Your task to perform on an android device: show emergency info Image 0: 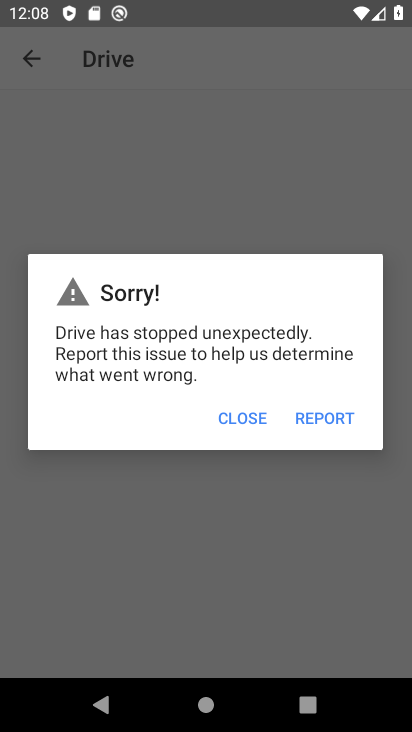
Step 0: press home button
Your task to perform on an android device: show emergency info Image 1: 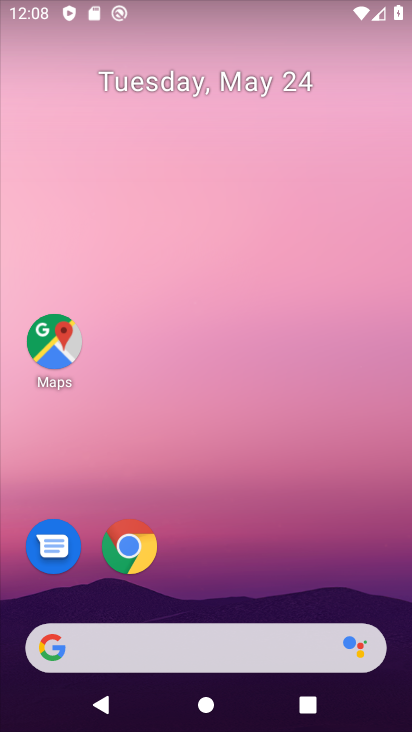
Step 1: drag from (256, 652) to (321, 2)
Your task to perform on an android device: show emergency info Image 2: 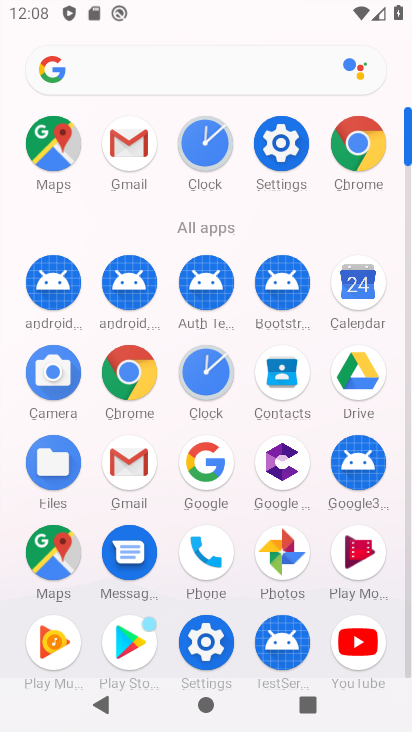
Step 2: drag from (241, 598) to (241, 177)
Your task to perform on an android device: show emergency info Image 3: 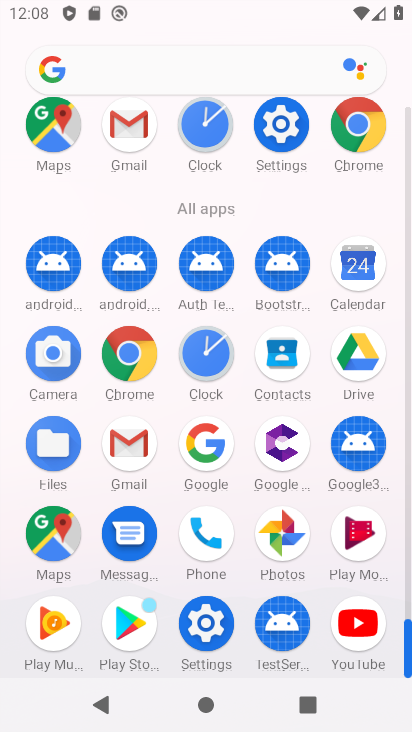
Step 3: click (191, 608)
Your task to perform on an android device: show emergency info Image 4: 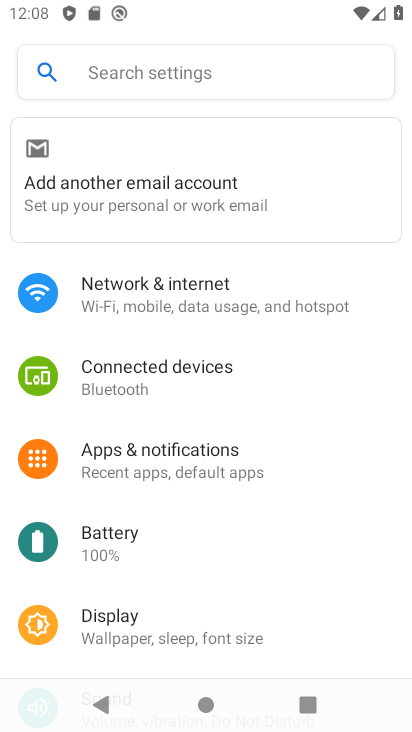
Step 4: drag from (250, 604) to (278, 104)
Your task to perform on an android device: show emergency info Image 5: 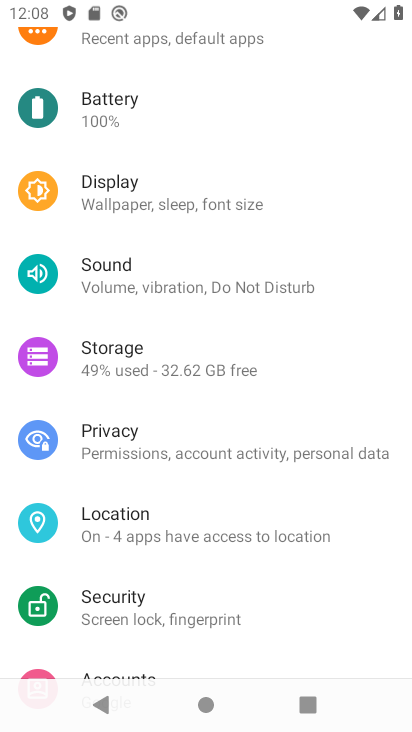
Step 5: drag from (277, 588) to (239, 232)
Your task to perform on an android device: show emergency info Image 6: 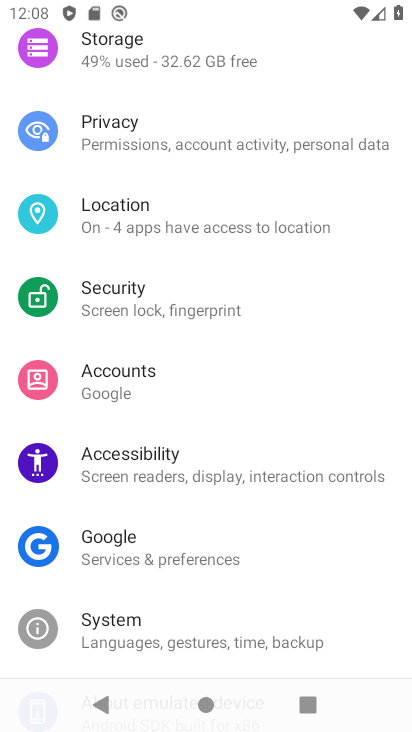
Step 6: drag from (214, 615) to (223, 259)
Your task to perform on an android device: show emergency info Image 7: 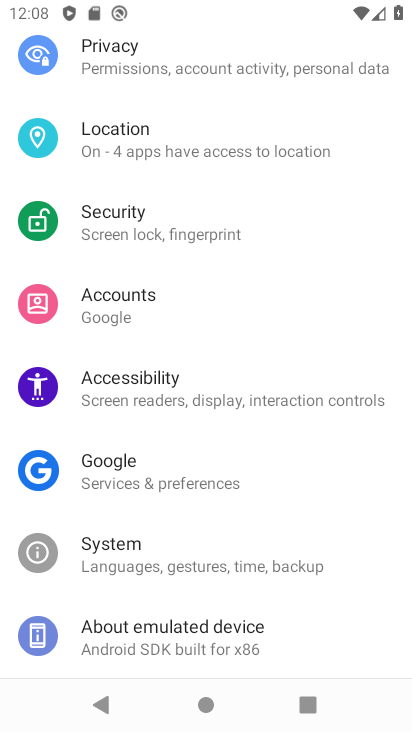
Step 7: click (221, 641)
Your task to perform on an android device: show emergency info Image 8: 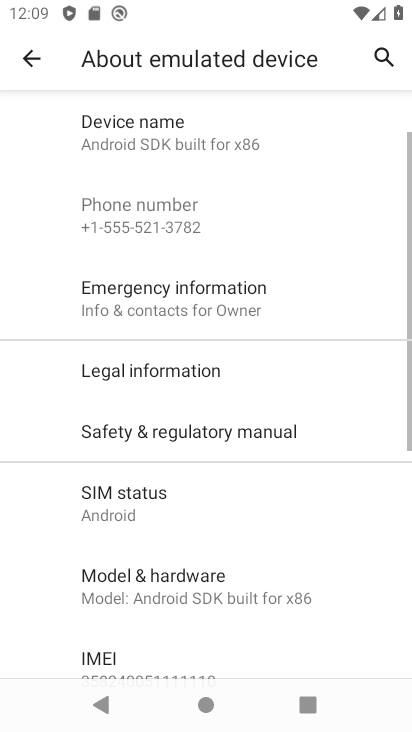
Step 8: click (187, 296)
Your task to perform on an android device: show emergency info Image 9: 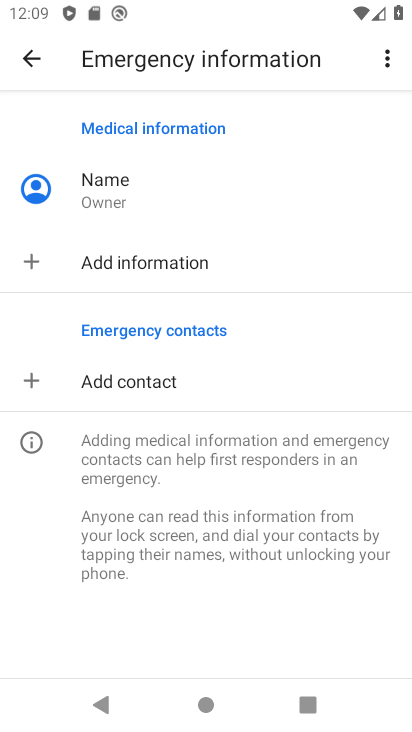
Step 9: task complete